Your task to perform on an android device: turn vacation reply on in the gmail app Image 0: 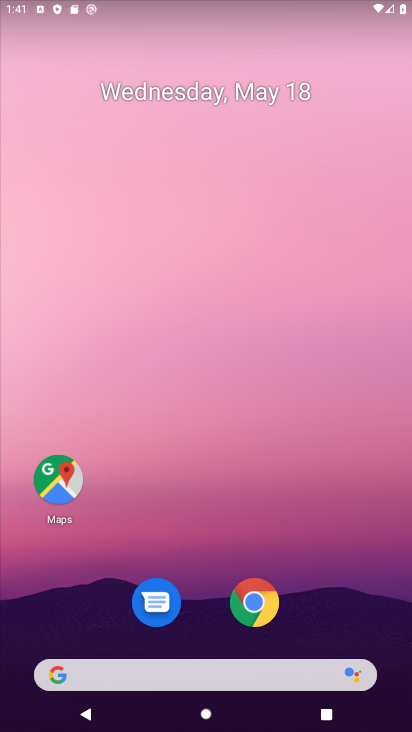
Step 0: drag from (153, 698) to (151, 96)
Your task to perform on an android device: turn vacation reply on in the gmail app Image 1: 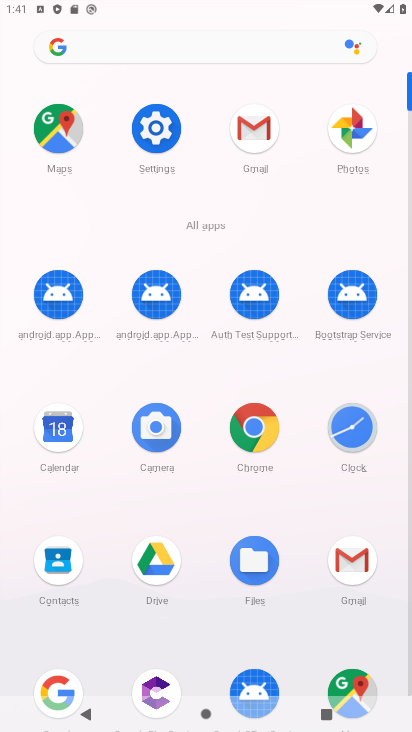
Step 1: click (257, 141)
Your task to perform on an android device: turn vacation reply on in the gmail app Image 2: 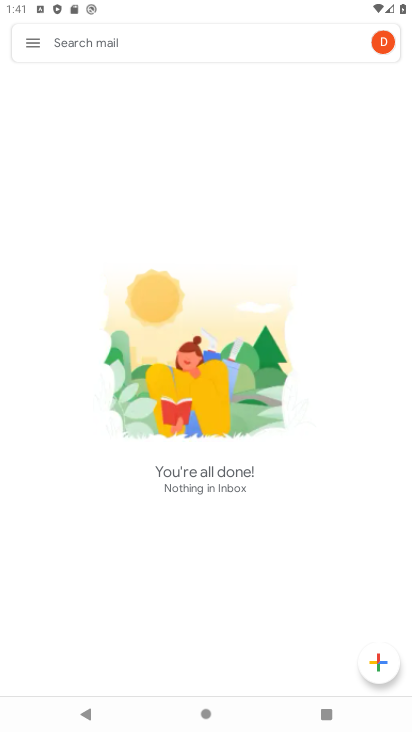
Step 2: click (28, 46)
Your task to perform on an android device: turn vacation reply on in the gmail app Image 3: 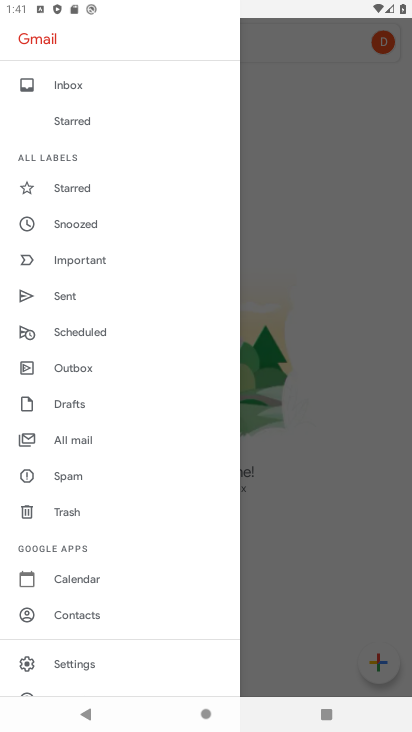
Step 3: click (86, 664)
Your task to perform on an android device: turn vacation reply on in the gmail app Image 4: 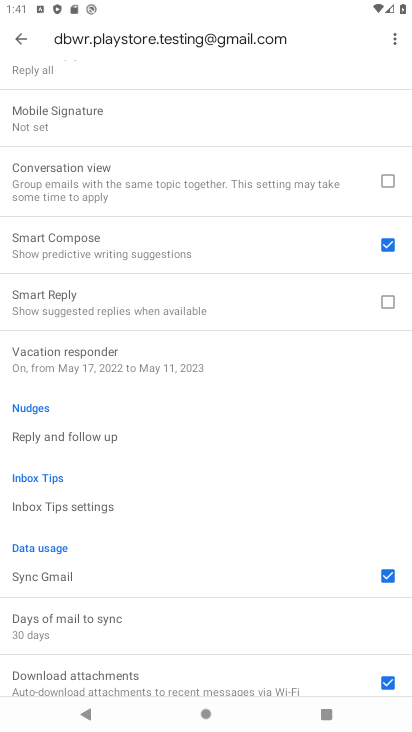
Step 4: click (149, 354)
Your task to perform on an android device: turn vacation reply on in the gmail app Image 5: 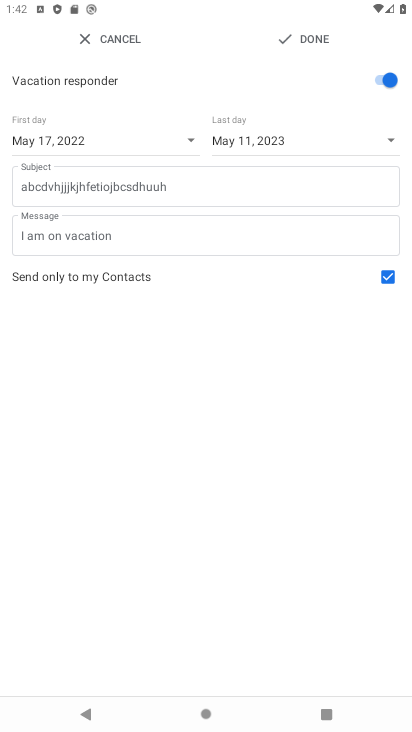
Step 5: click (298, 33)
Your task to perform on an android device: turn vacation reply on in the gmail app Image 6: 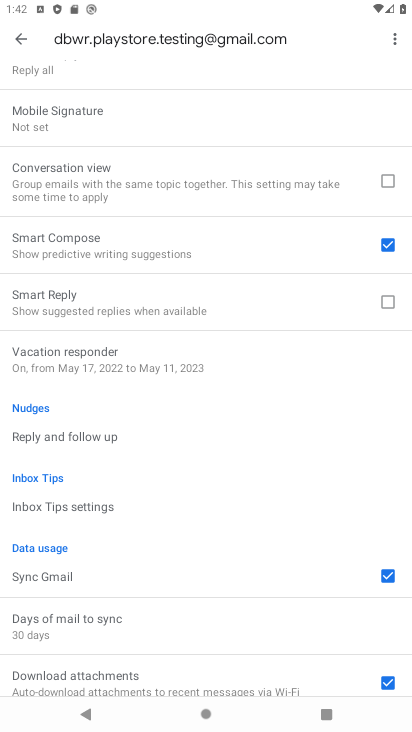
Step 6: task complete